Your task to perform on an android device: toggle improve location accuracy Image 0: 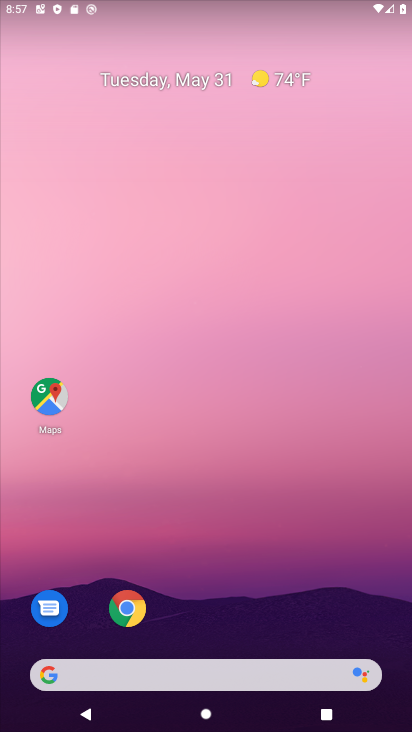
Step 0: drag from (239, 648) to (251, 94)
Your task to perform on an android device: toggle improve location accuracy Image 1: 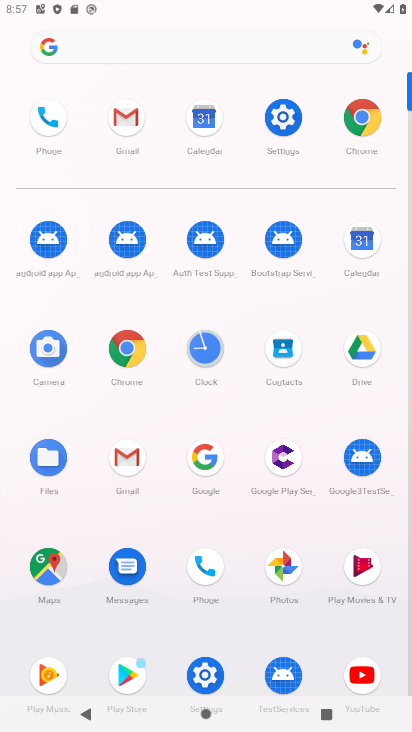
Step 1: click (283, 128)
Your task to perform on an android device: toggle improve location accuracy Image 2: 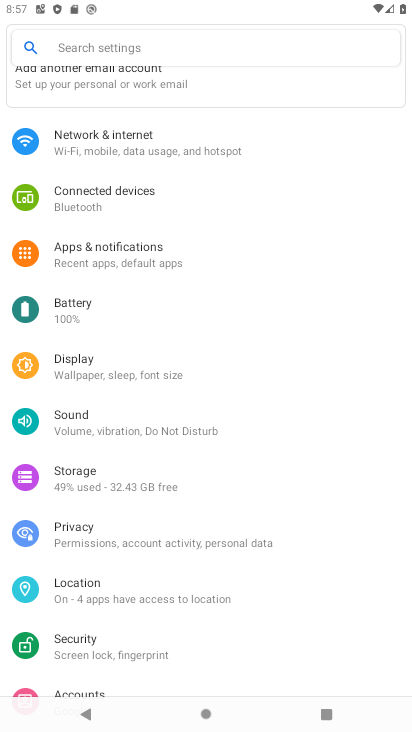
Step 2: click (126, 579)
Your task to perform on an android device: toggle improve location accuracy Image 3: 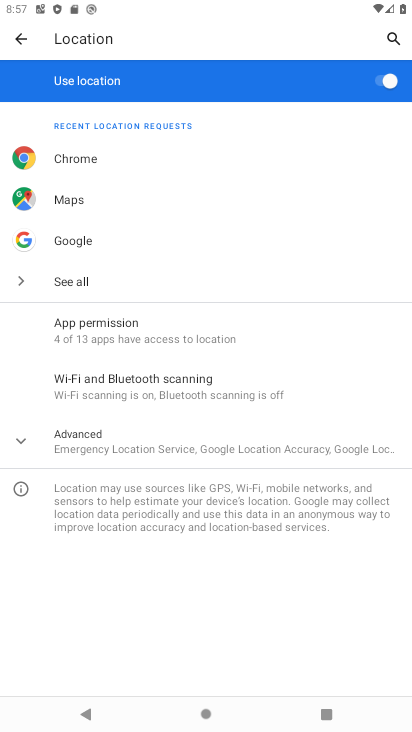
Step 3: click (135, 462)
Your task to perform on an android device: toggle improve location accuracy Image 4: 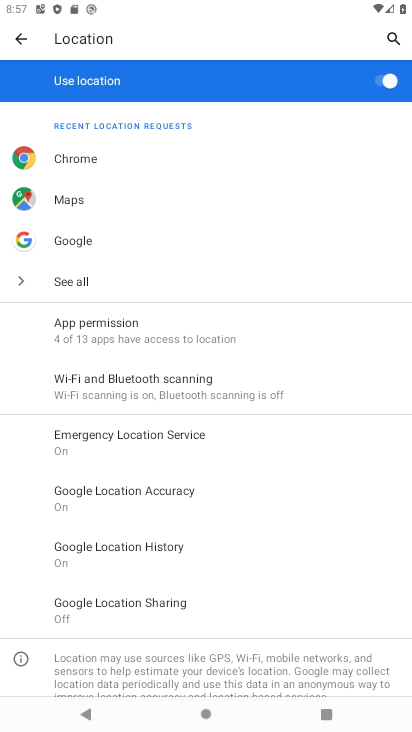
Step 4: click (148, 486)
Your task to perform on an android device: toggle improve location accuracy Image 5: 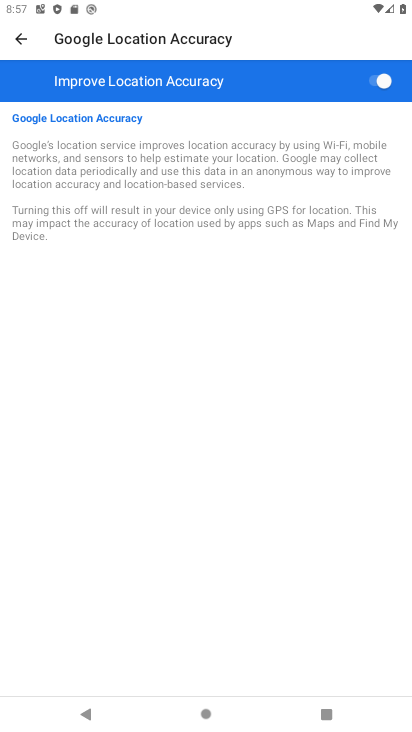
Step 5: click (372, 88)
Your task to perform on an android device: toggle improve location accuracy Image 6: 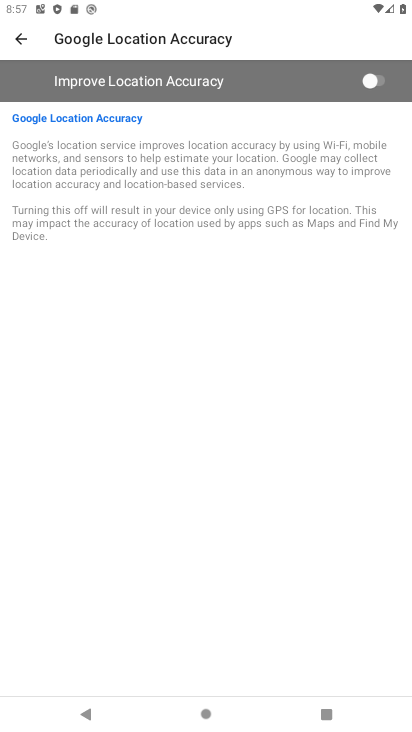
Step 6: task complete